Your task to perform on an android device: Turn off the flashlight Image 0: 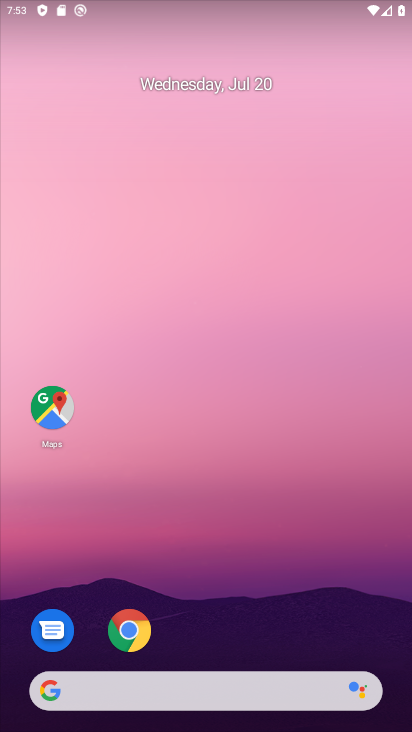
Step 0: drag from (320, 617) to (327, 121)
Your task to perform on an android device: Turn off the flashlight Image 1: 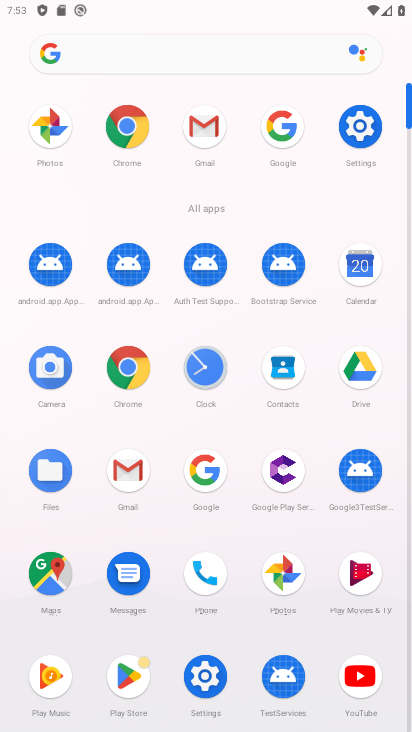
Step 1: click (366, 121)
Your task to perform on an android device: Turn off the flashlight Image 2: 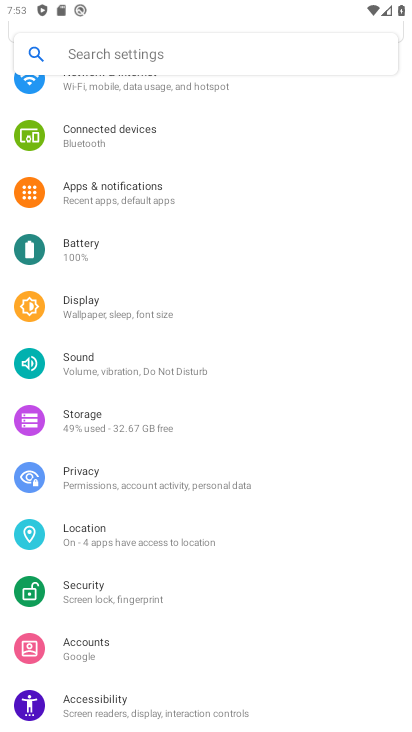
Step 2: task complete